Your task to perform on an android device: Open the calendar and show me this week's events Image 0: 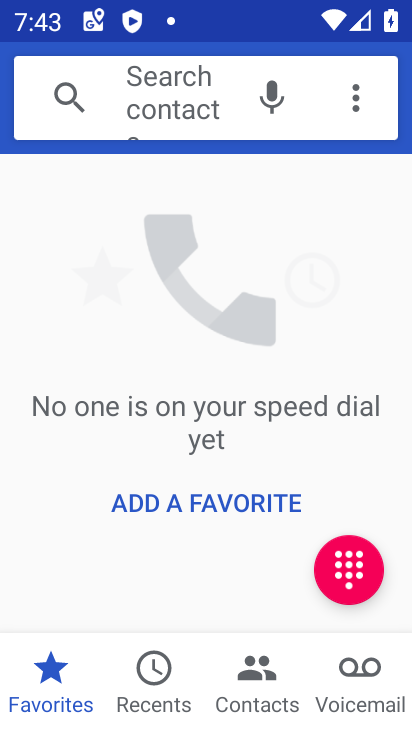
Step 0: press home button
Your task to perform on an android device: Open the calendar and show me this week's events Image 1: 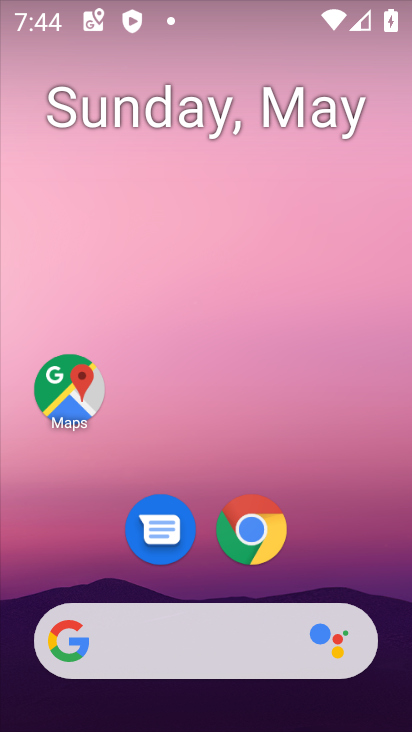
Step 1: drag from (360, 601) to (356, 7)
Your task to perform on an android device: Open the calendar and show me this week's events Image 2: 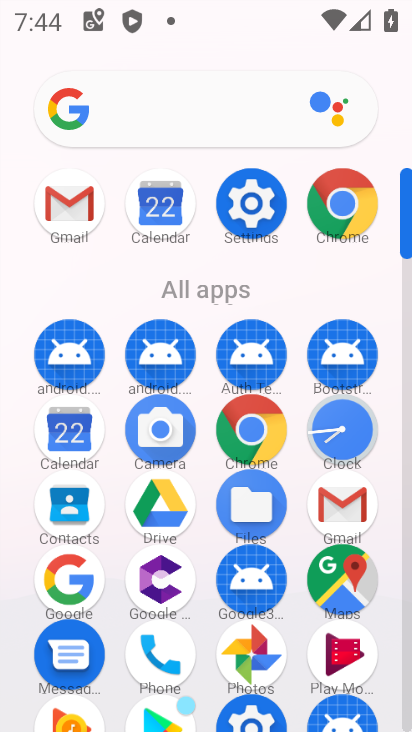
Step 2: click (151, 208)
Your task to perform on an android device: Open the calendar and show me this week's events Image 3: 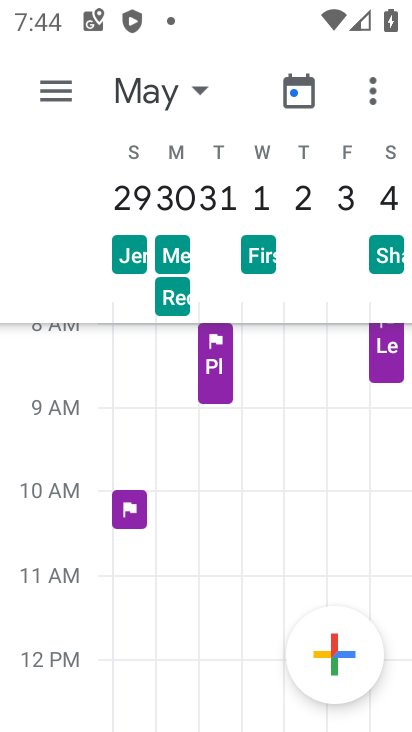
Step 3: click (199, 93)
Your task to perform on an android device: Open the calendar and show me this week's events Image 4: 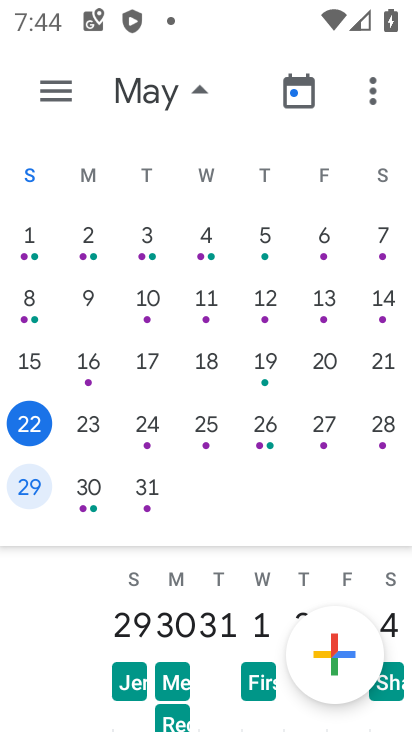
Step 4: click (82, 430)
Your task to perform on an android device: Open the calendar and show me this week's events Image 5: 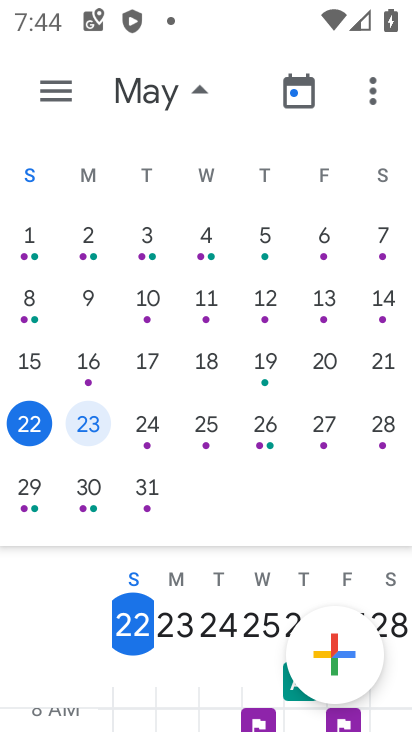
Step 5: drag from (165, 597) to (158, 47)
Your task to perform on an android device: Open the calendar and show me this week's events Image 6: 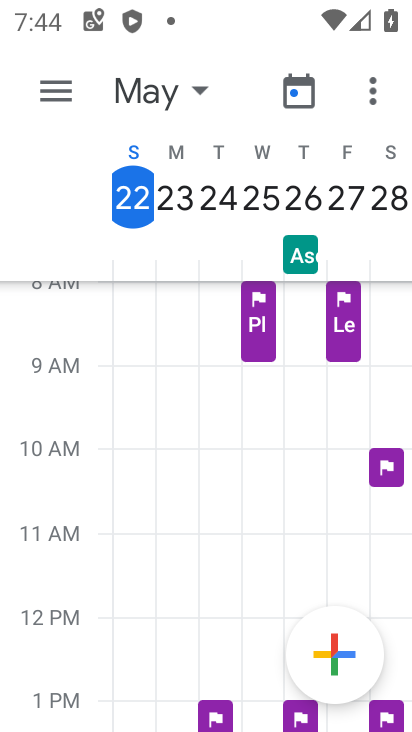
Step 6: click (58, 91)
Your task to perform on an android device: Open the calendar and show me this week's events Image 7: 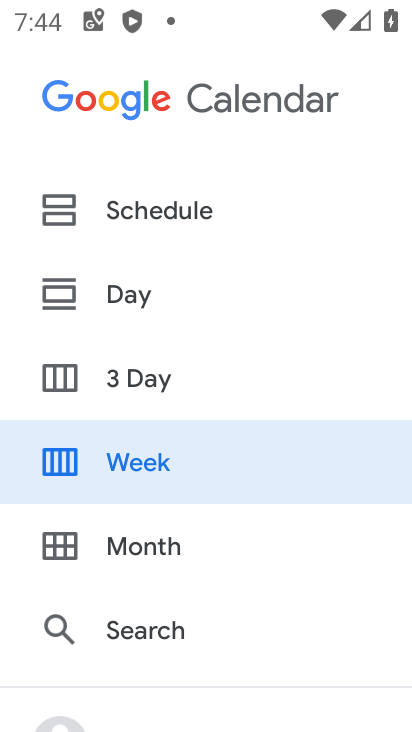
Step 7: drag from (155, 565) to (134, 63)
Your task to perform on an android device: Open the calendar and show me this week's events Image 8: 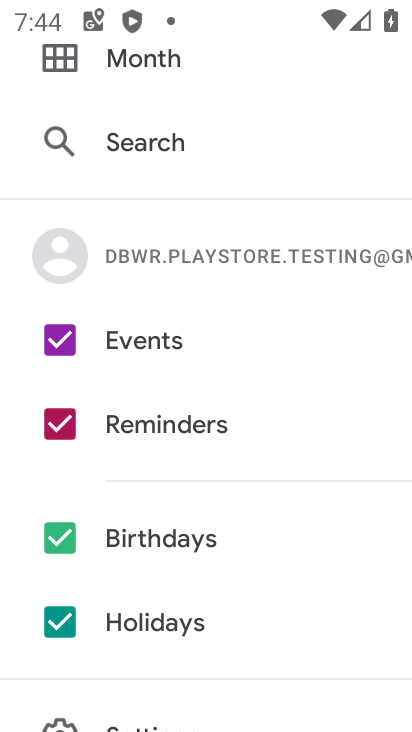
Step 8: click (64, 433)
Your task to perform on an android device: Open the calendar and show me this week's events Image 9: 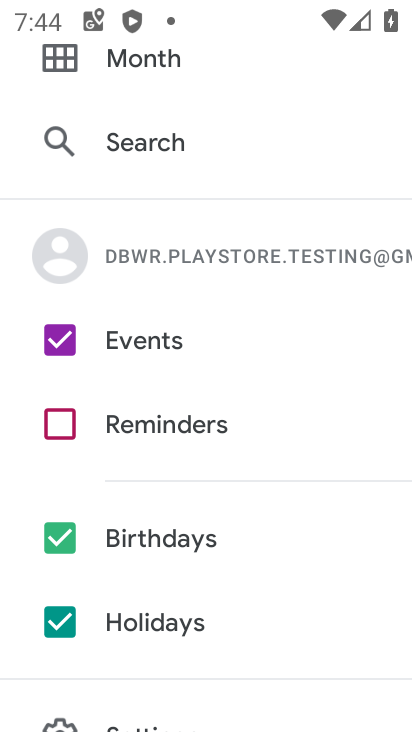
Step 9: click (58, 538)
Your task to perform on an android device: Open the calendar and show me this week's events Image 10: 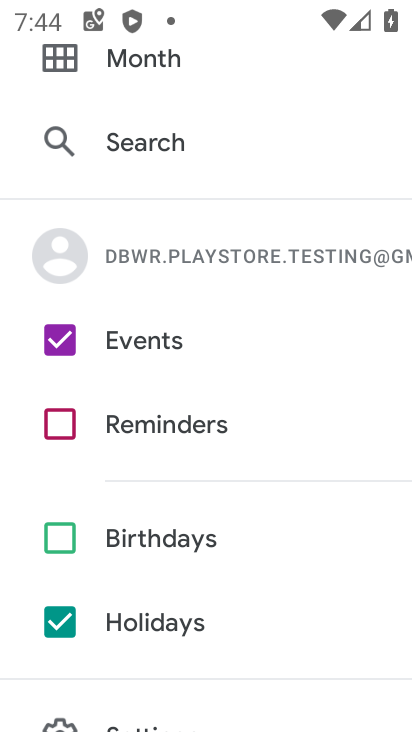
Step 10: click (61, 618)
Your task to perform on an android device: Open the calendar and show me this week's events Image 11: 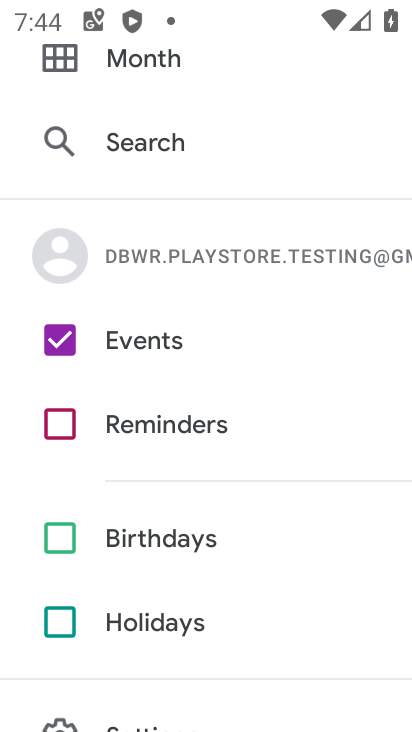
Step 11: drag from (256, 331) to (288, 657)
Your task to perform on an android device: Open the calendar and show me this week's events Image 12: 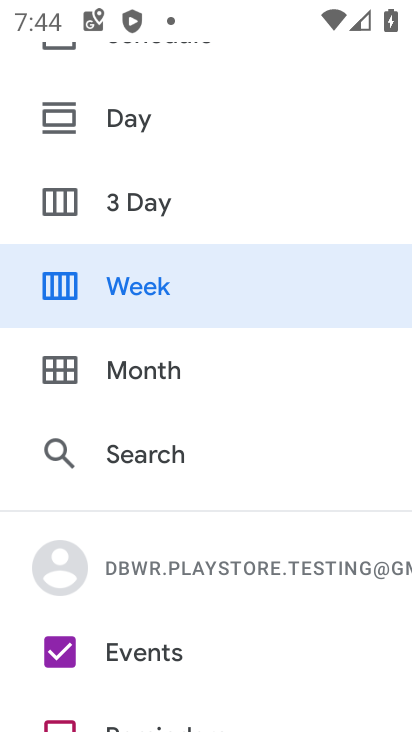
Step 12: click (82, 300)
Your task to perform on an android device: Open the calendar and show me this week's events Image 13: 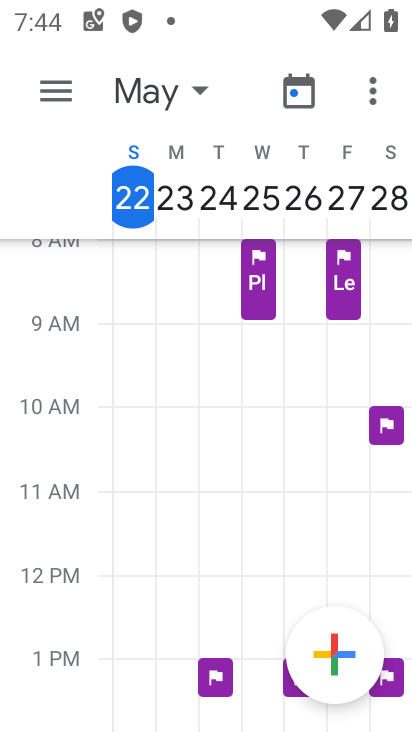
Step 13: task complete